Your task to perform on an android device: Open the stopwatch Image 0: 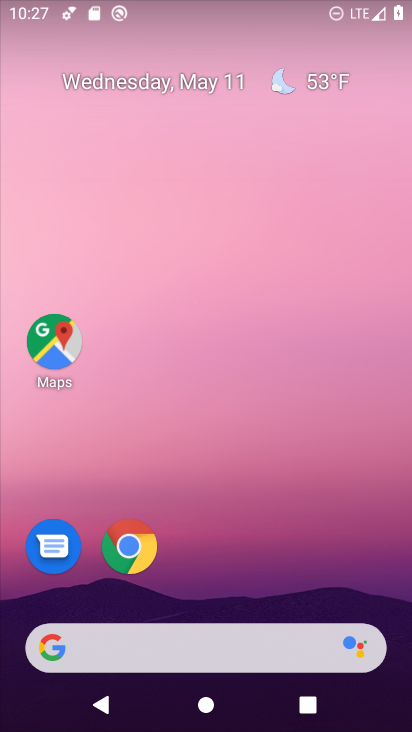
Step 0: drag from (398, 632) to (299, 109)
Your task to perform on an android device: Open the stopwatch Image 1: 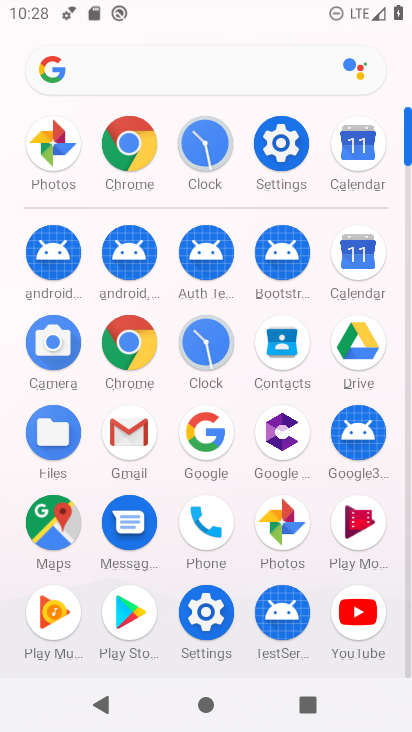
Step 1: click (213, 162)
Your task to perform on an android device: Open the stopwatch Image 2: 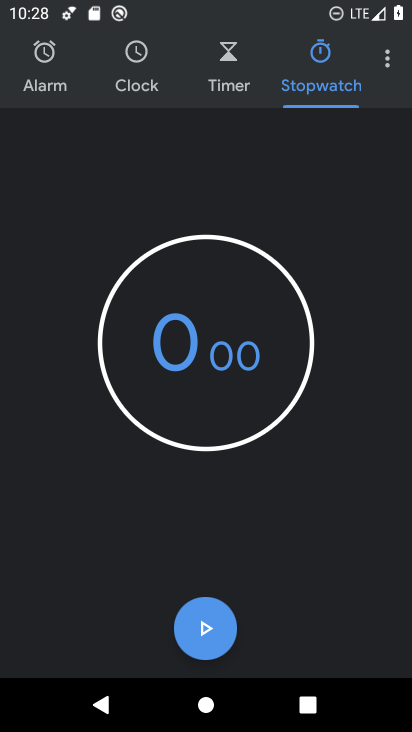
Step 2: task complete